Your task to perform on an android device: Open network settings Image 0: 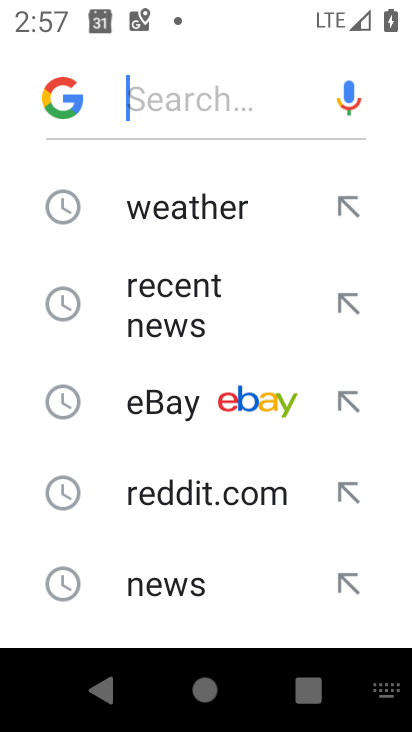
Step 0: press home button
Your task to perform on an android device: Open network settings Image 1: 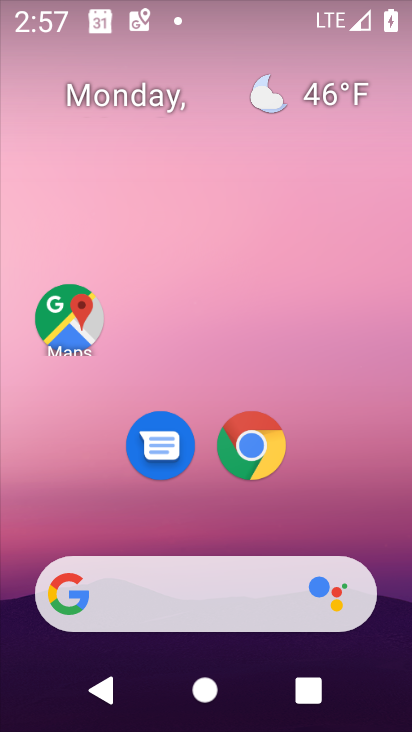
Step 1: drag from (312, 442) to (317, 114)
Your task to perform on an android device: Open network settings Image 2: 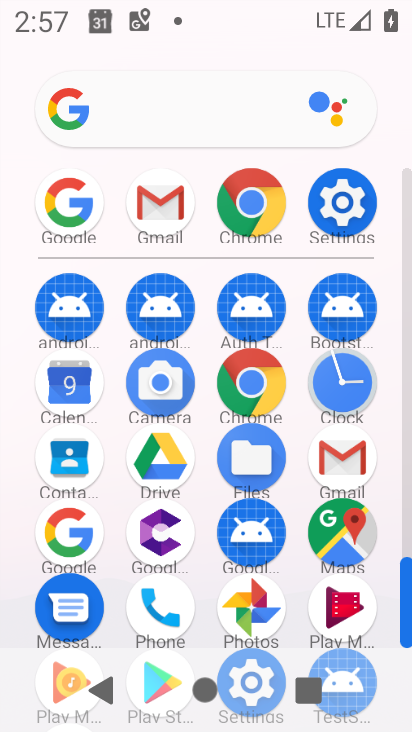
Step 2: click (330, 210)
Your task to perform on an android device: Open network settings Image 3: 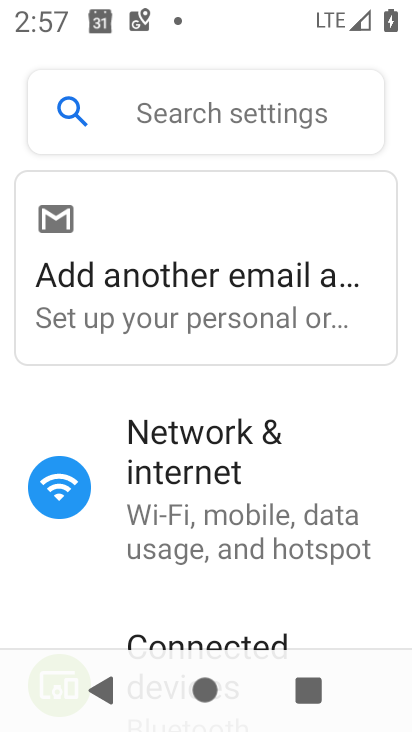
Step 3: drag from (279, 555) to (305, 227)
Your task to perform on an android device: Open network settings Image 4: 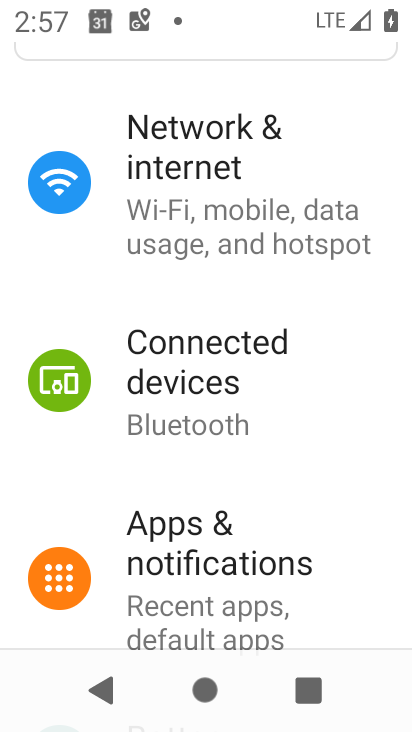
Step 4: click (290, 247)
Your task to perform on an android device: Open network settings Image 5: 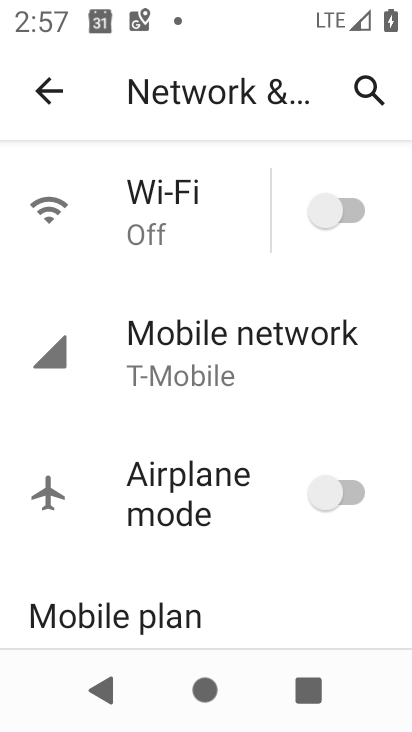
Step 5: task complete